Your task to perform on an android device: toggle sleep mode Image 0: 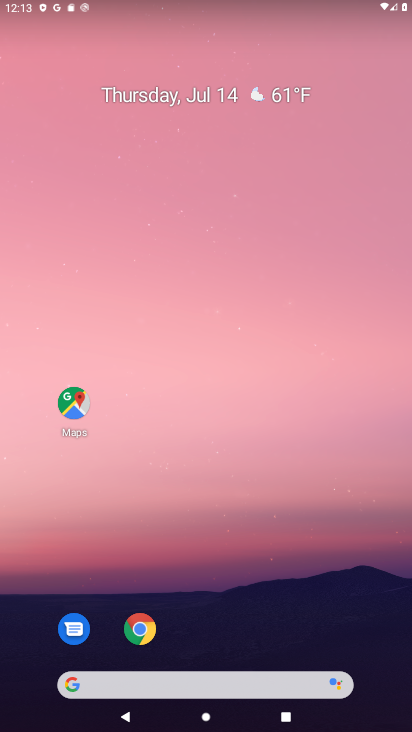
Step 0: drag from (193, 652) to (249, 198)
Your task to perform on an android device: toggle sleep mode Image 1: 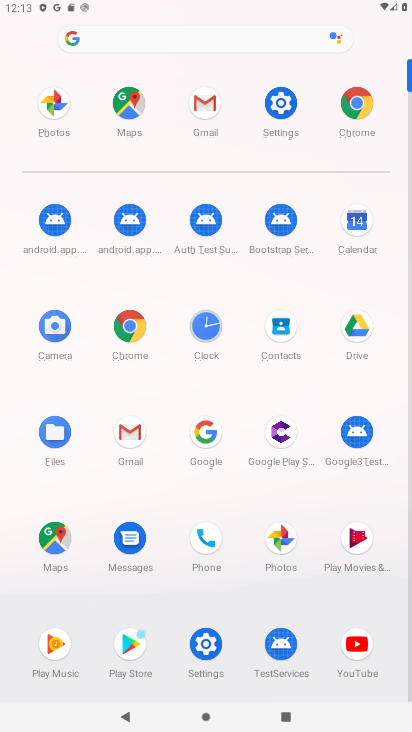
Step 1: click (275, 87)
Your task to perform on an android device: toggle sleep mode Image 2: 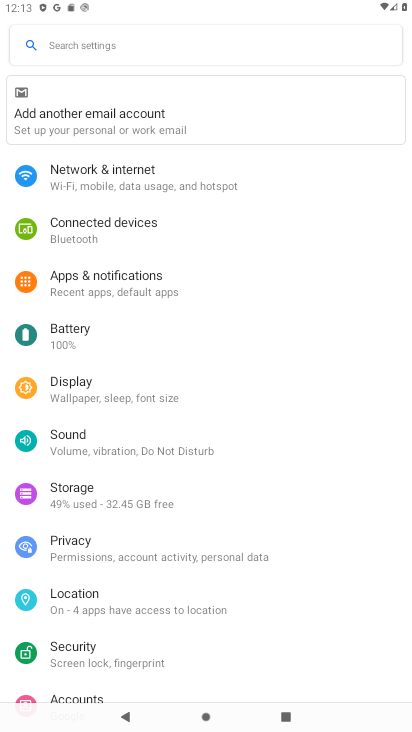
Step 2: task complete